Your task to perform on an android device: turn on location history Image 0: 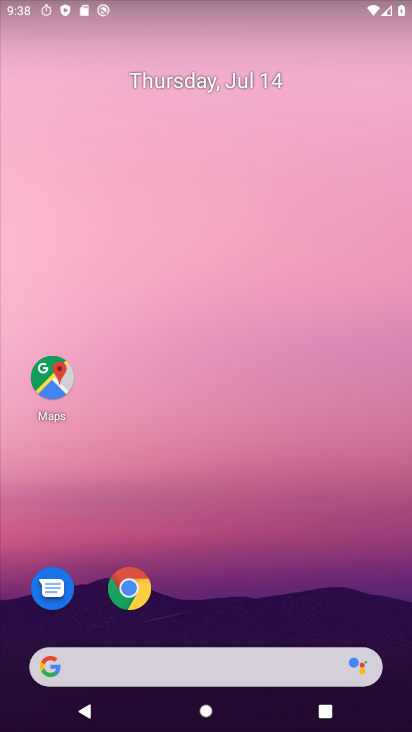
Step 0: drag from (194, 653) to (188, 377)
Your task to perform on an android device: turn on location history Image 1: 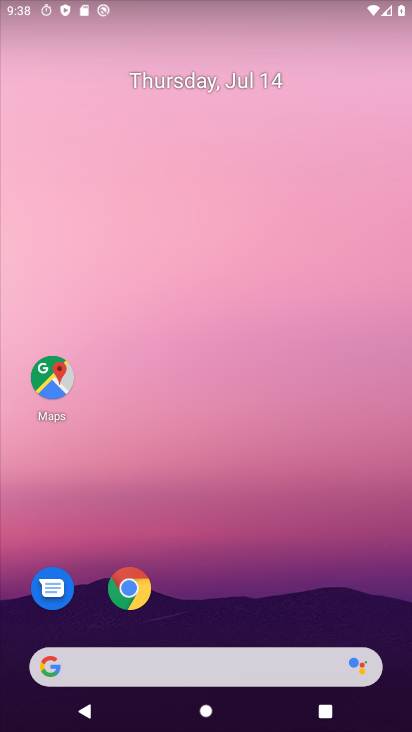
Step 1: drag from (252, 654) to (203, 269)
Your task to perform on an android device: turn on location history Image 2: 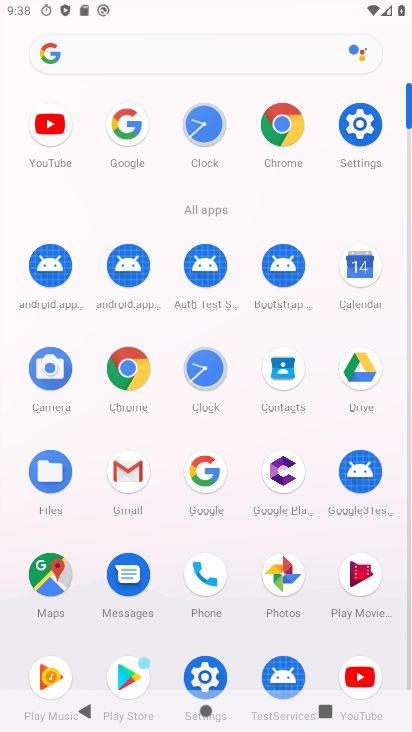
Step 2: click (361, 130)
Your task to perform on an android device: turn on location history Image 3: 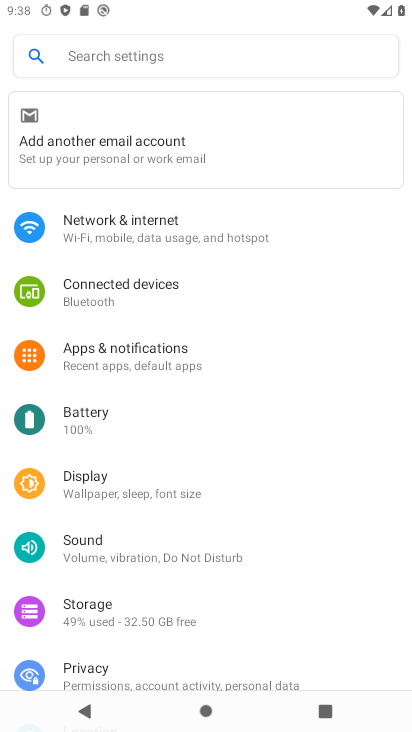
Step 3: drag from (90, 541) to (90, 304)
Your task to perform on an android device: turn on location history Image 4: 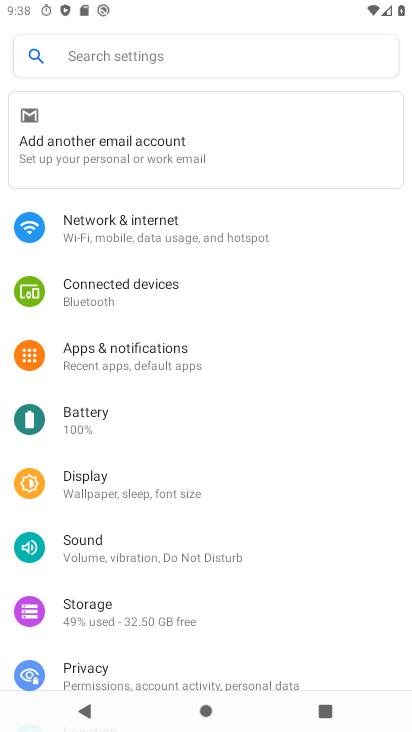
Step 4: drag from (128, 686) to (122, 263)
Your task to perform on an android device: turn on location history Image 5: 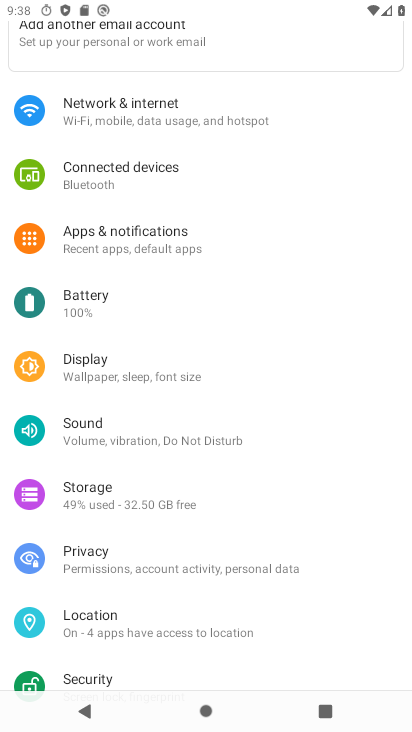
Step 5: click (93, 639)
Your task to perform on an android device: turn on location history Image 6: 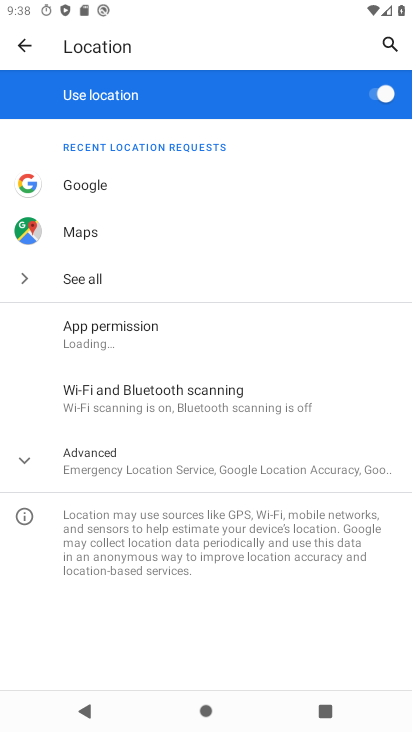
Step 6: click (78, 458)
Your task to perform on an android device: turn on location history Image 7: 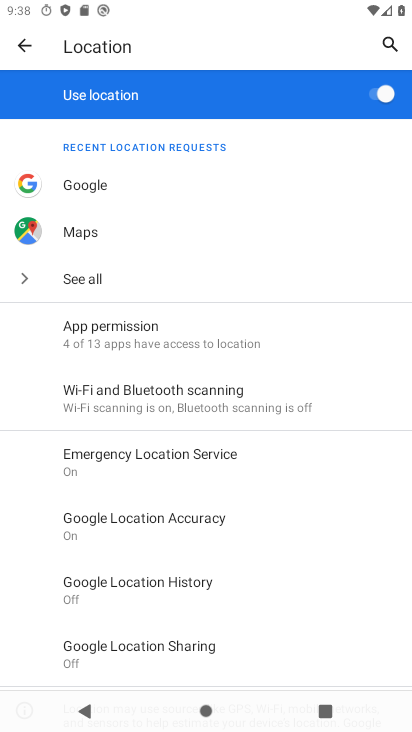
Step 7: click (116, 595)
Your task to perform on an android device: turn on location history Image 8: 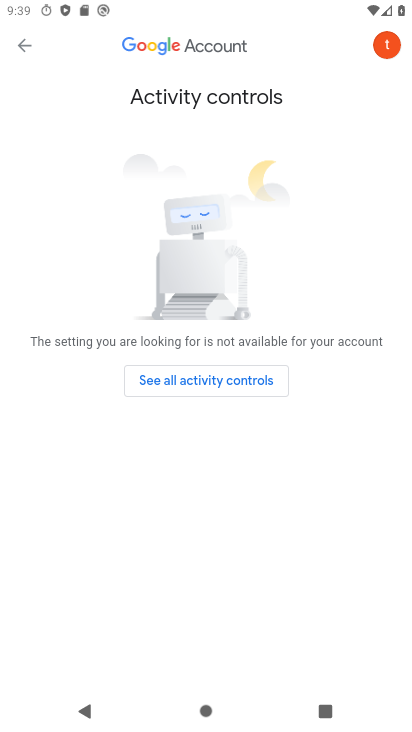
Step 8: click (221, 369)
Your task to perform on an android device: turn on location history Image 9: 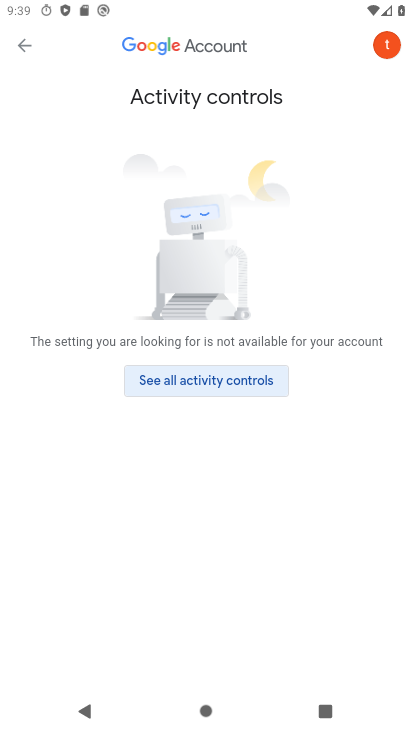
Step 9: click (226, 381)
Your task to perform on an android device: turn on location history Image 10: 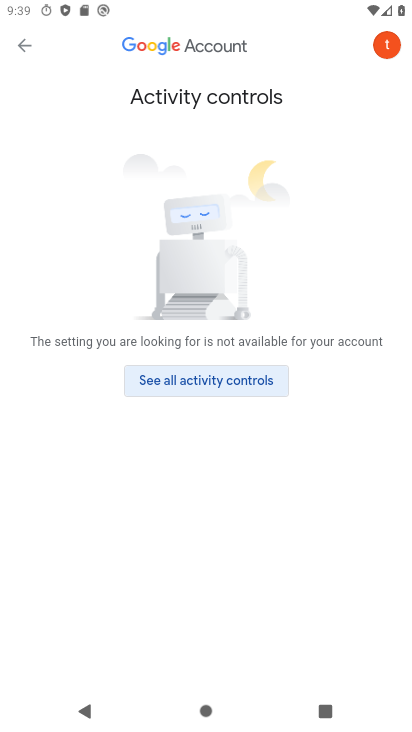
Step 10: click (226, 382)
Your task to perform on an android device: turn on location history Image 11: 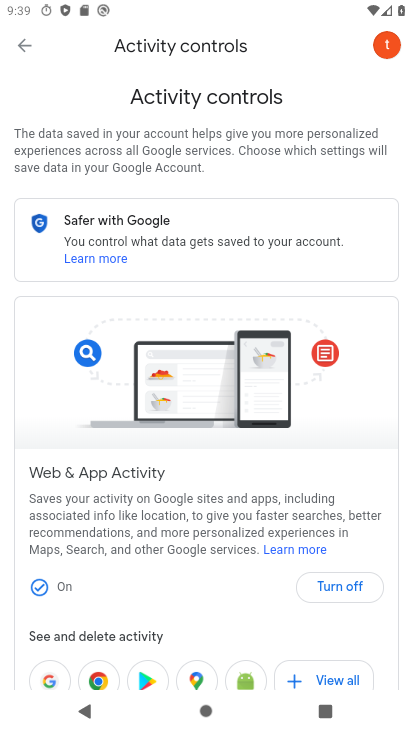
Step 11: task complete